Your task to perform on an android device: Open Reddit.com Image 0: 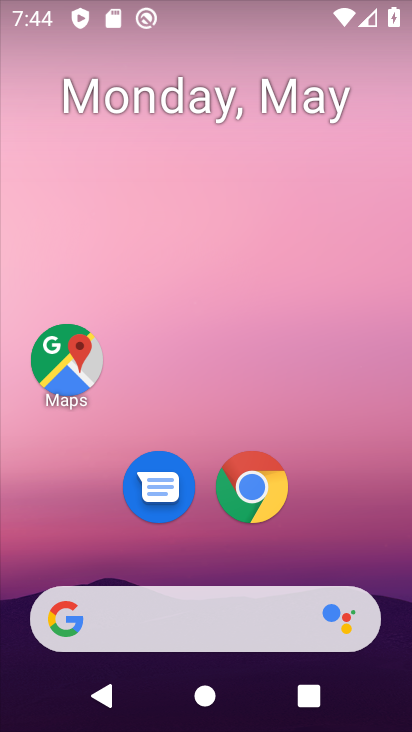
Step 0: press home button
Your task to perform on an android device: Open Reddit.com Image 1: 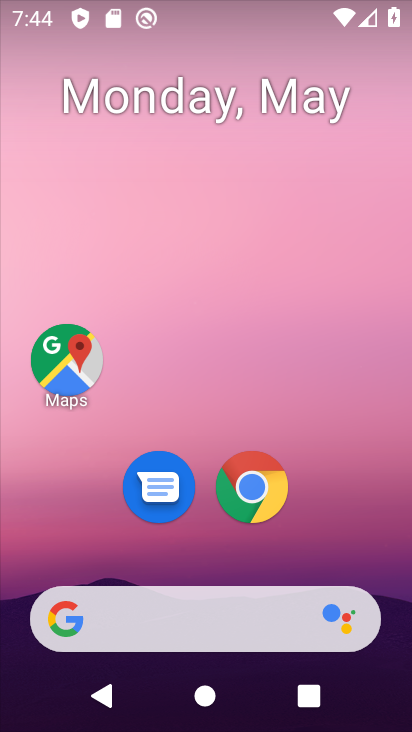
Step 1: click (70, 633)
Your task to perform on an android device: Open Reddit.com Image 2: 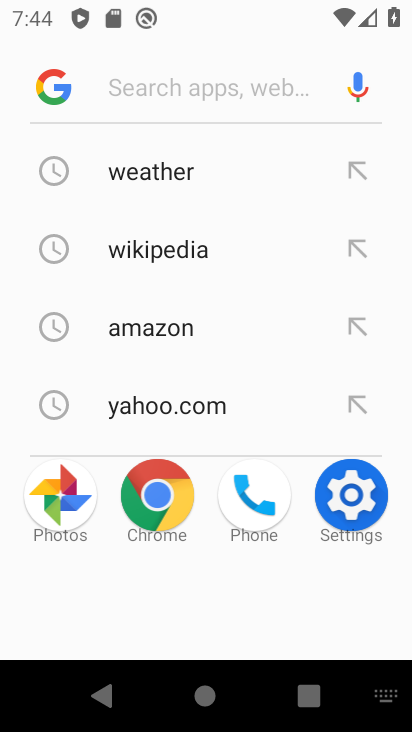
Step 2: type "Reddit.com"
Your task to perform on an android device: Open Reddit.com Image 3: 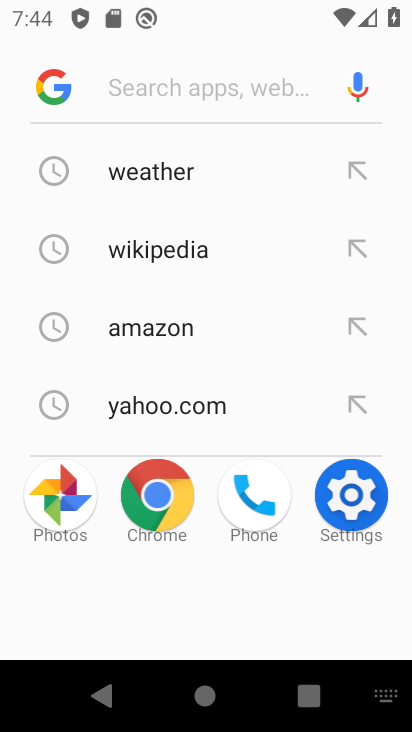
Step 3: click (215, 93)
Your task to perform on an android device: Open Reddit.com Image 4: 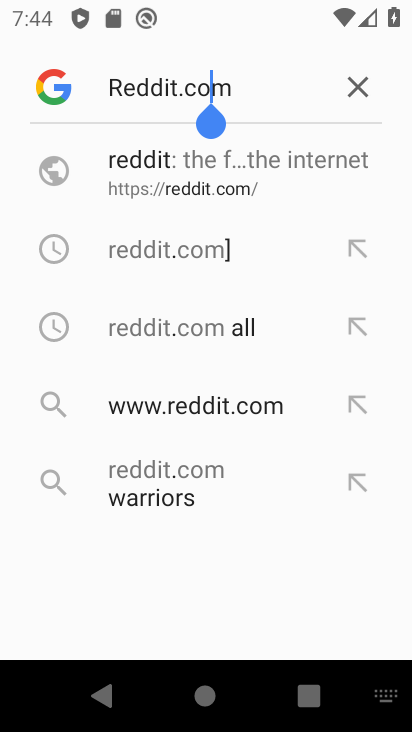
Step 4: click (176, 165)
Your task to perform on an android device: Open Reddit.com Image 5: 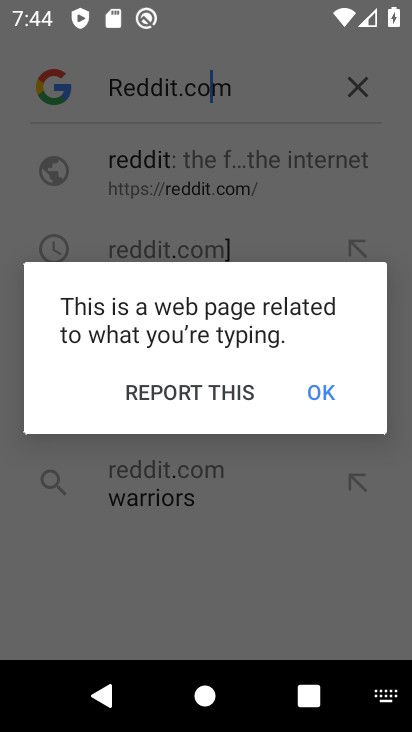
Step 5: click (329, 407)
Your task to perform on an android device: Open Reddit.com Image 6: 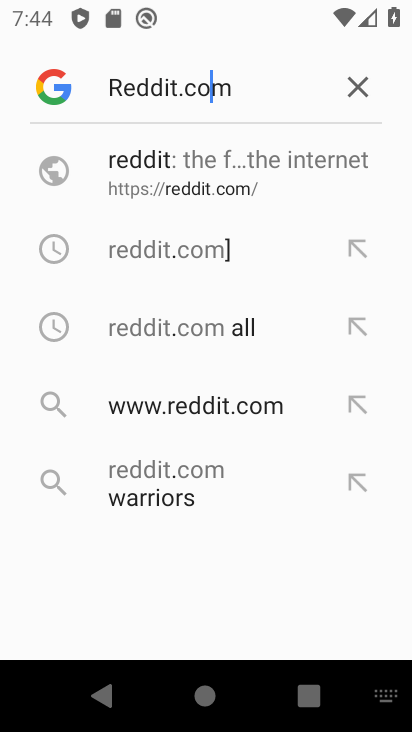
Step 6: click (141, 167)
Your task to perform on an android device: Open Reddit.com Image 7: 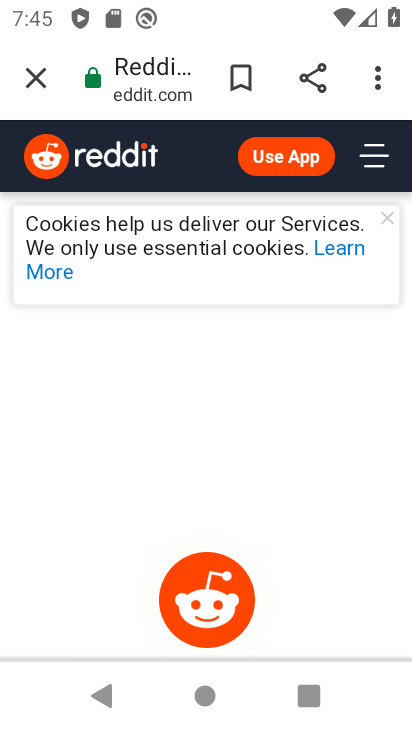
Step 7: task complete